Your task to perform on an android device: Open Google Maps and go to "Timeline" Image 0: 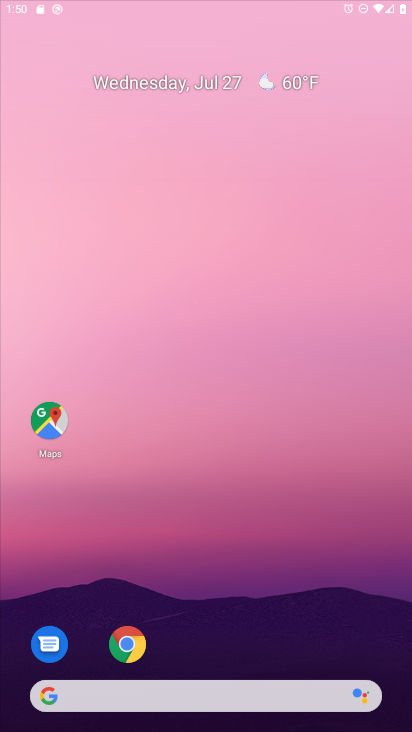
Step 0: drag from (262, 509) to (301, 135)
Your task to perform on an android device: Open Google Maps and go to "Timeline" Image 1: 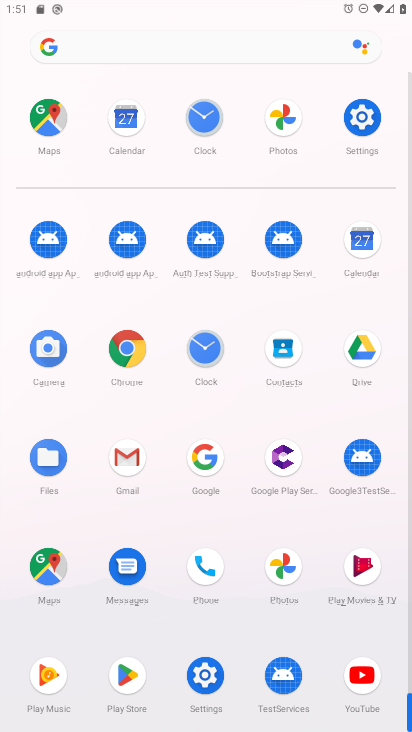
Step 1: click (40, 557)
Your task to perform on an android device: Open Google Maps and go to "Timeline" Image 2: 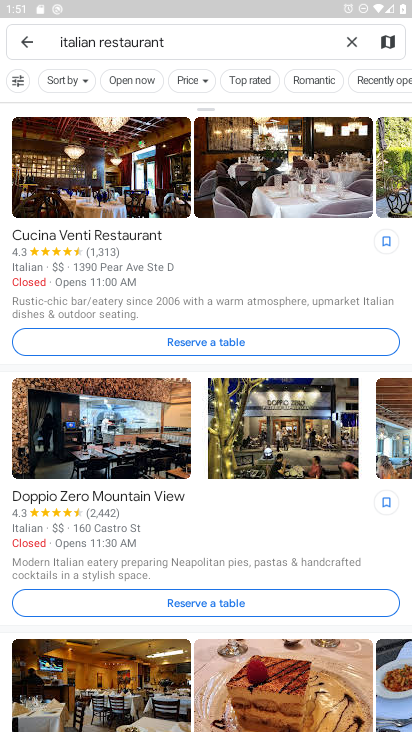
Step 2: click (34, 41)
Your task to perform on an android device: Open Google Maps and go to "Timeline" Image 3: 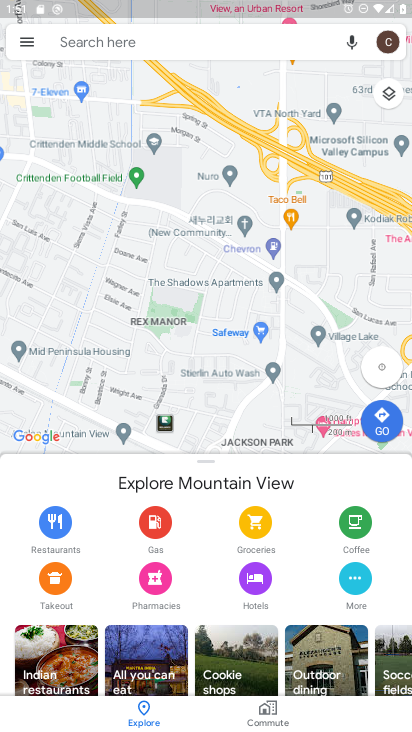
Step 3: click (26, 40)
Your task to perform on an android device: Open Google Maps and go to "Timeline" Image 4: 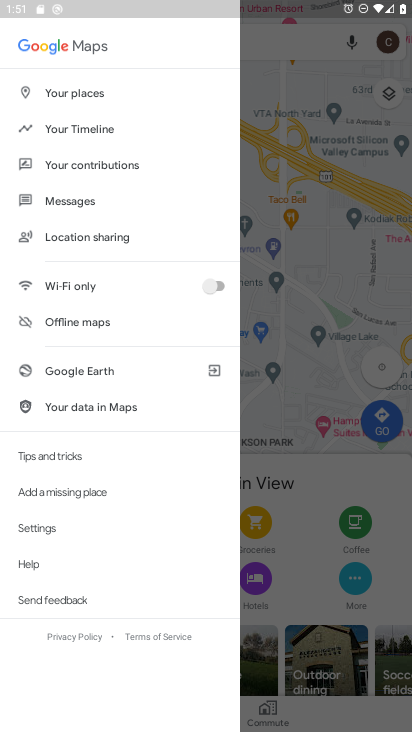
Step 4: click (80, 128)
Your task to perform on an android device: Open Google Maps and go to "Timeline" Image 5: 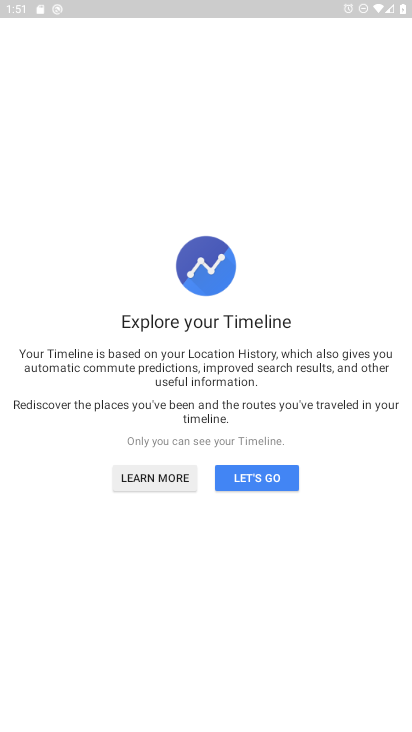
Step 5: click (255, 471)
Your task to perform on an android device: Open Google Maps and go to "Timeline" Image 6: 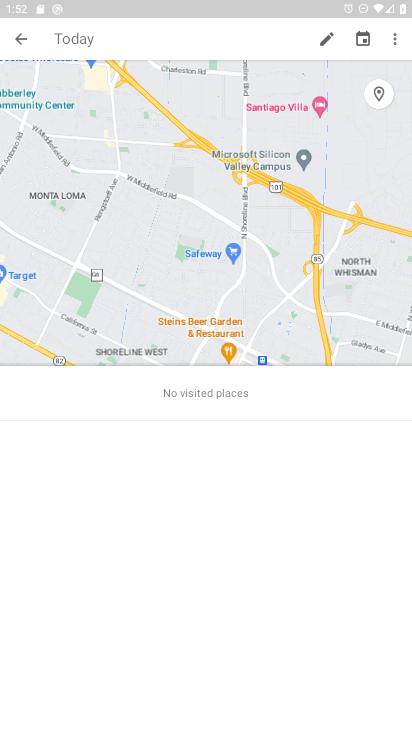
Step 6: task complete